Your task to perform on an android device: install app "NewsBreak: Local News & Alerts" Image 0: 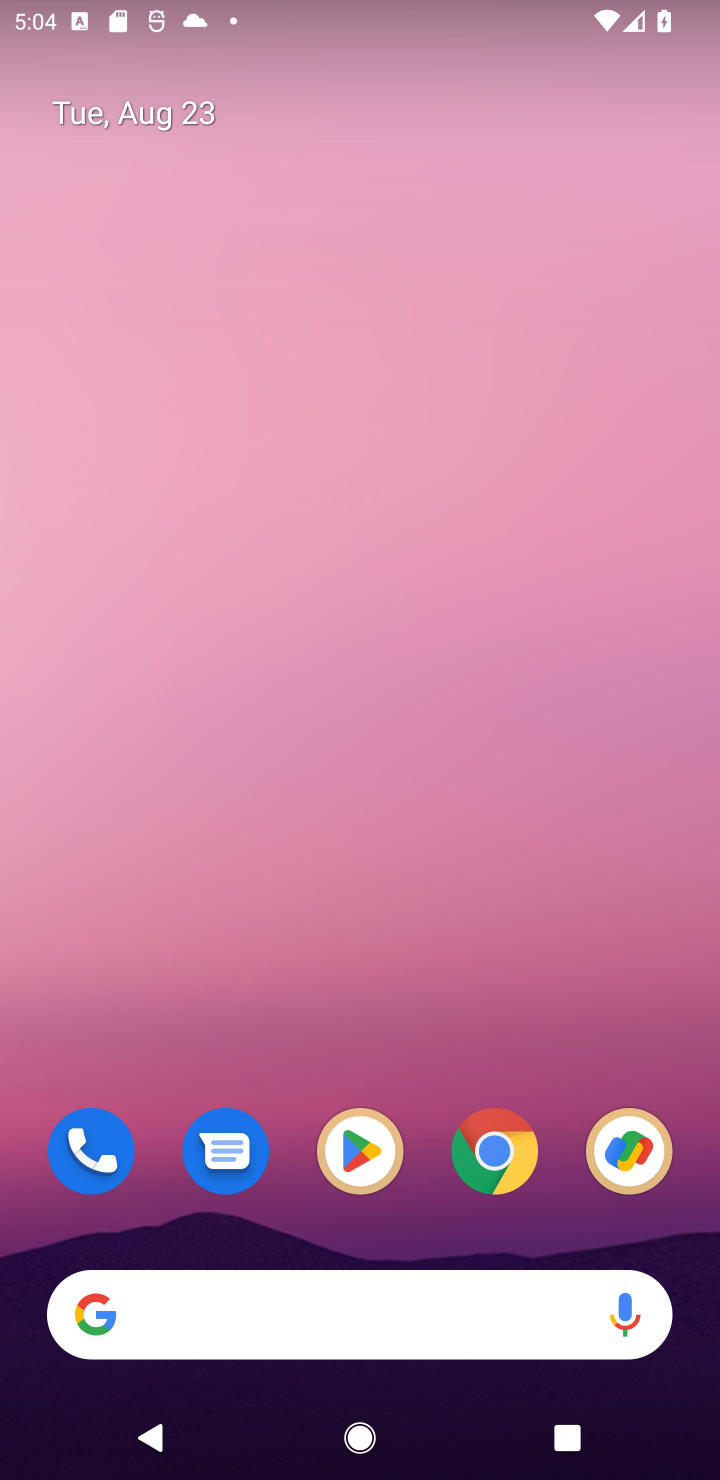
Step 0: click (356, 1136)
Your task to perform on an android device: install app "NewsBreak: Local News & Alerts" Image 1: 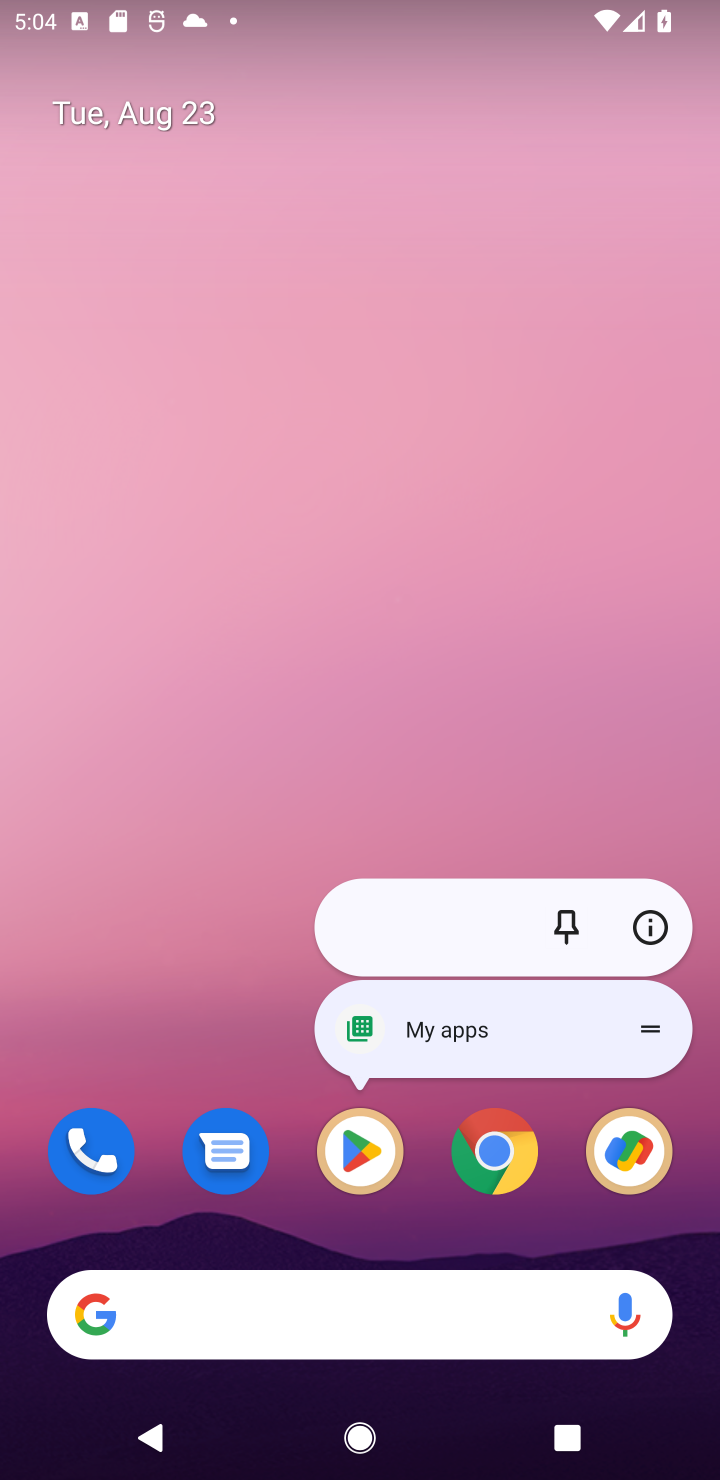
Step 1: click (358, 1138)
Your task to perform on an android device: install app "NewsBreak: Local News & Alerts" Image 2: 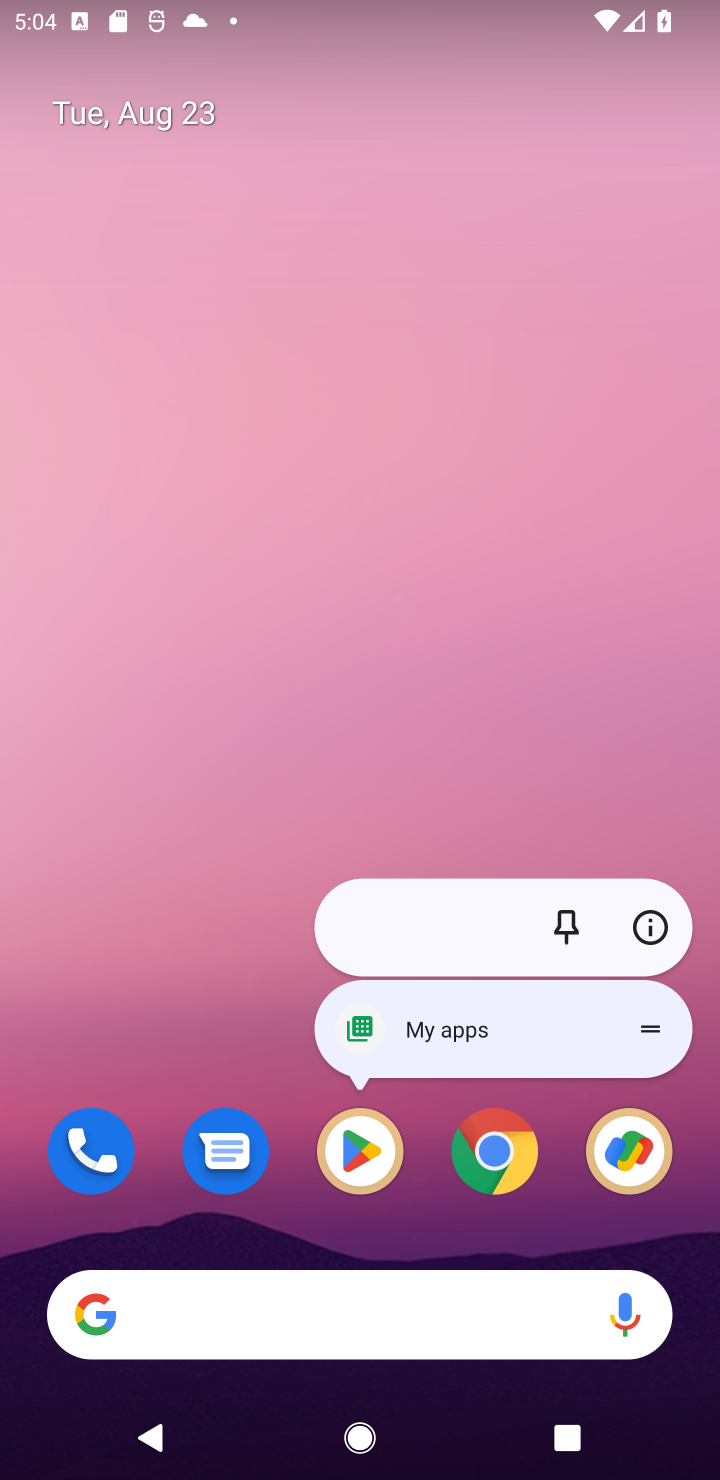
Step 2: click (356, 1148)
Your task to perform on an android device: install app "NewsBreak: Local News & Alerts" Image 3: 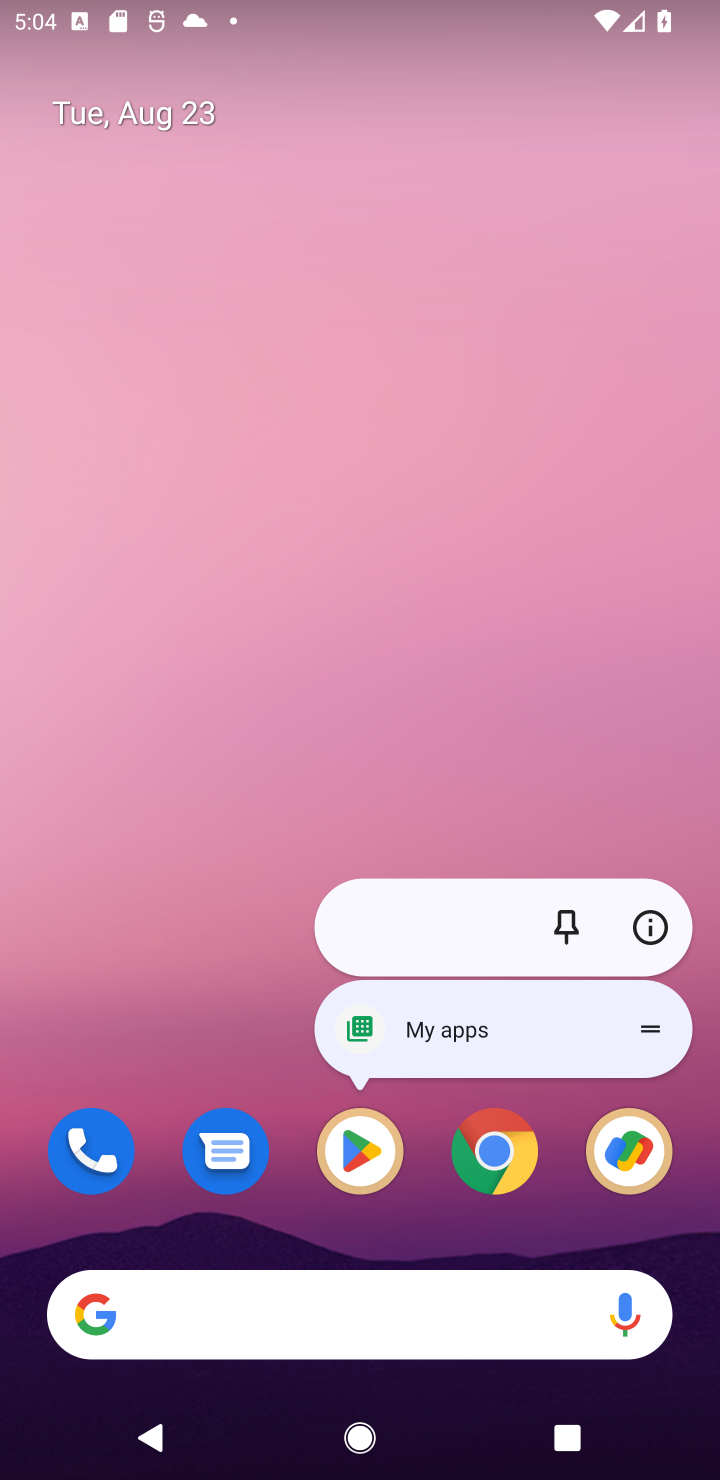
Step 3: click (356, 1150)
Your task to perform on an android device: install app "NewsBreak: Local News & Alerts" Image 4: 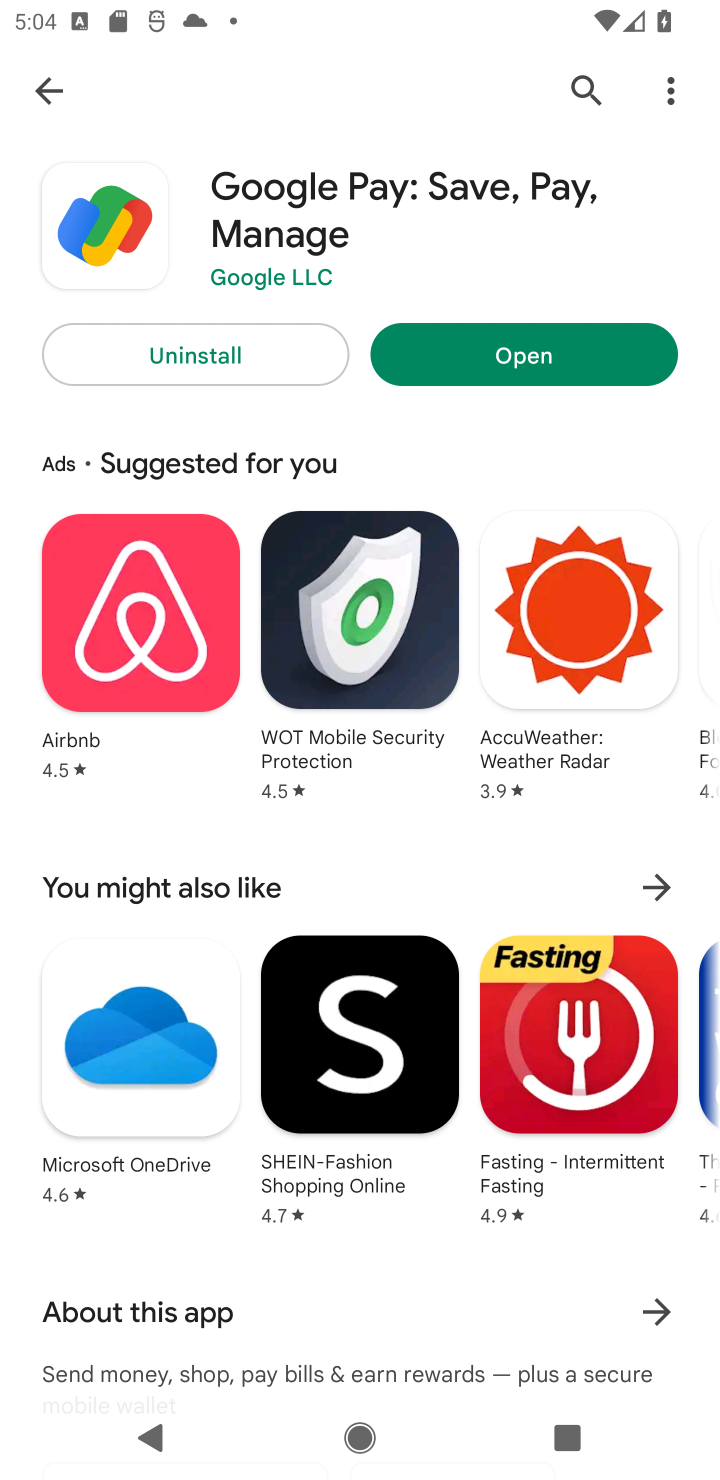
Step 4: click (580, 77)
Your task to perform on an android device: install app "NewsBreak: Local News & Alerts" Image 5: 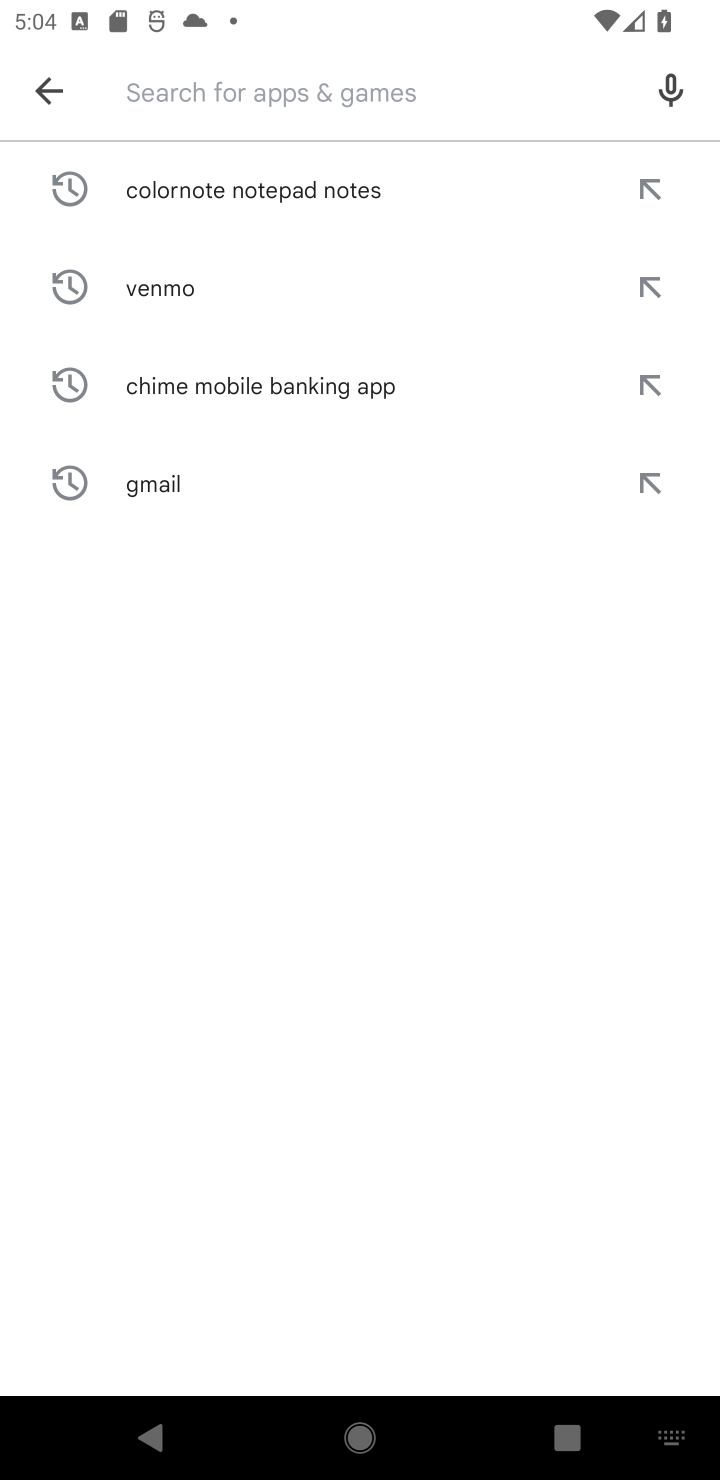
Step 5: type "NewsBreak: Local News & Alerts"
Your task to perform on an android device: install app "NewsBreak: Local News & Alerts" Image 6: 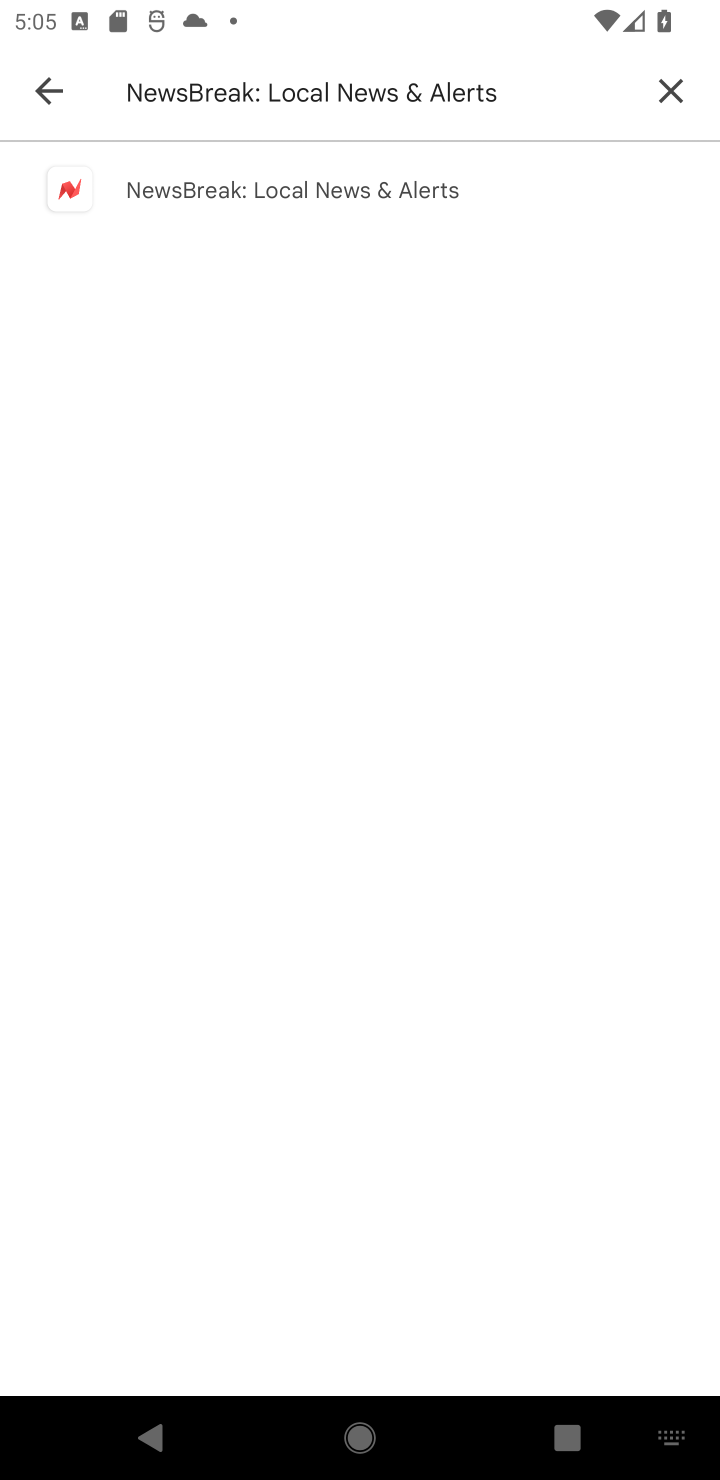
Step 6: click (263, 186)
Your task to perform on an android device: install app "NewsBreak: Local News & Alerts" Image 7: 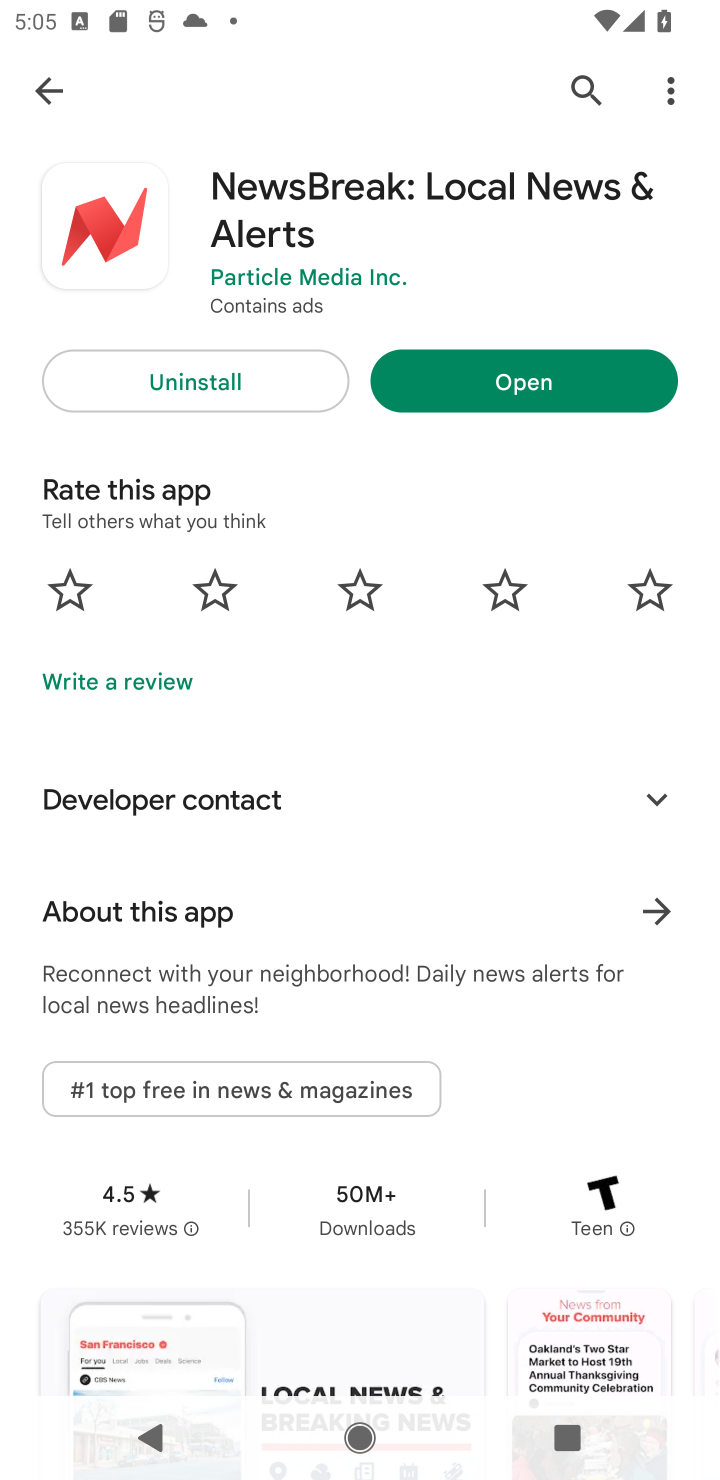
Step 7: task complete